Your task to perform on an android device: turn off data saver in the chrome app Image 0: 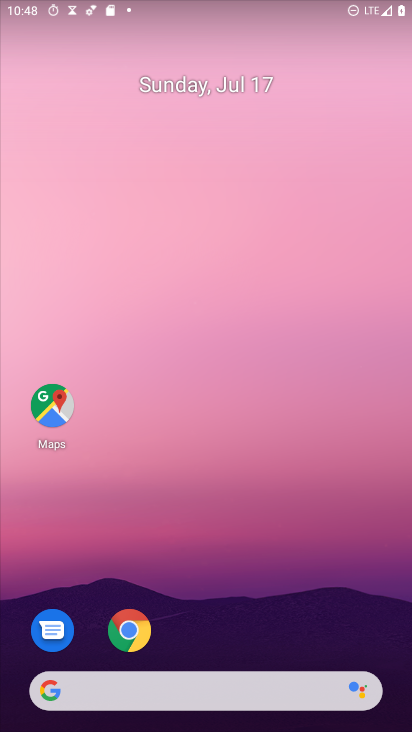
Step 0: drag from (309, 687) to (259, 80)
Your task to perform on an android device: turn off data saver in the chrome app Image 1: 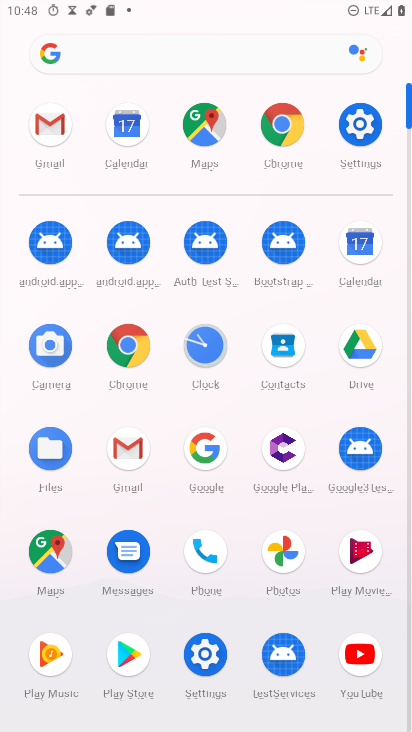
Step 1: click (109, 337)
Your task to perform on an android device: turn off data saver in the chrome app Image 2: 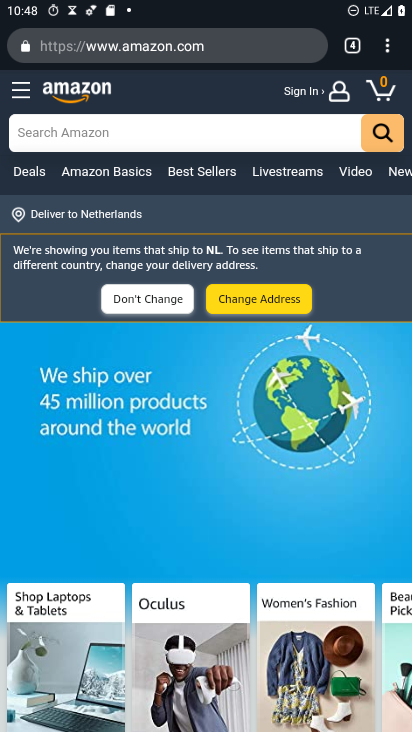
Step 2: drag from (388, 43) to (252, 549)
Your task to perform on an android device: turn off data saver in the chrome app Image 3: 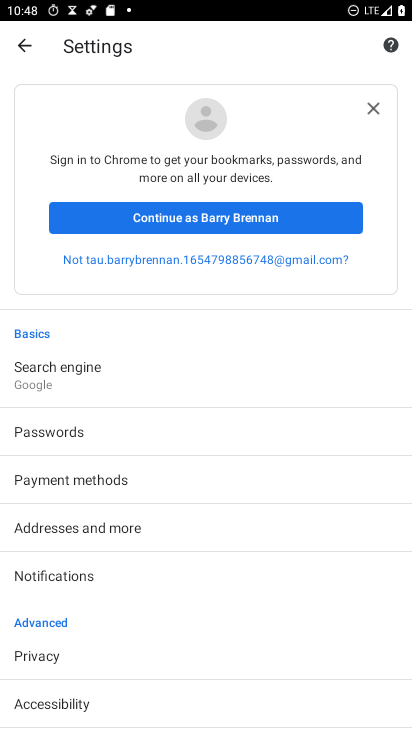
Step 3: drag from (264, 684) to (266, 201)
Your task to perform on an android device: turn off data saver in the chrome app Image 4: 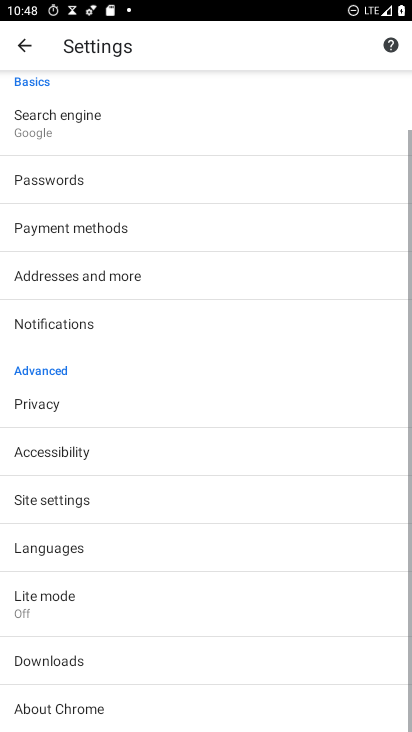
Step 4: click (64, 603)
Your task to perform on an android device: turn off data saver in the chrome app Image 5: 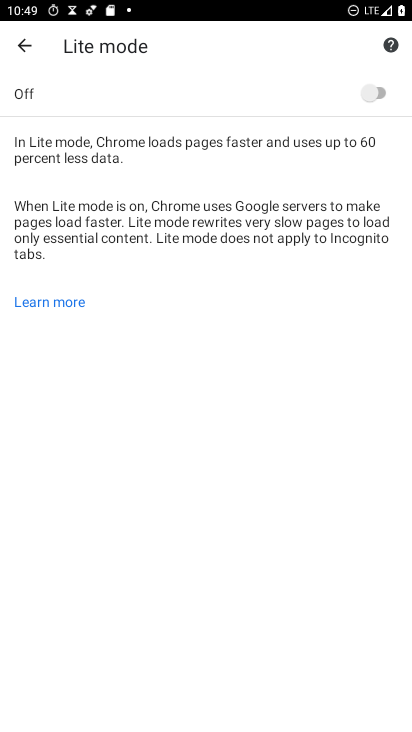
Step 5: task complete